Your task to perform on an android device: Open battery settings Image 0: 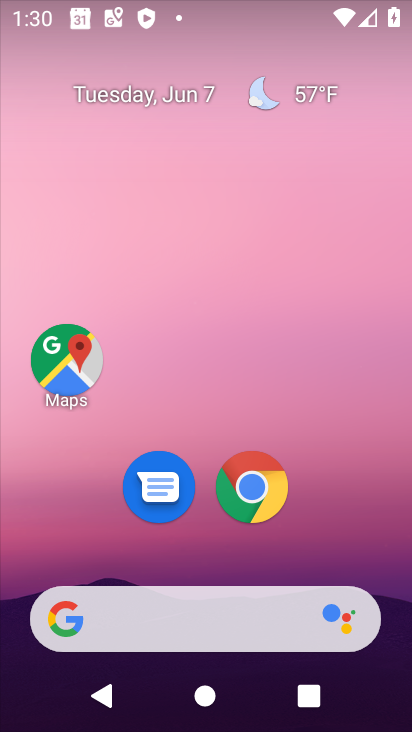
Step 0: drag from (322, 531) to (211, 51)
Your task to perform on an android device: Open battery settings Image 1: 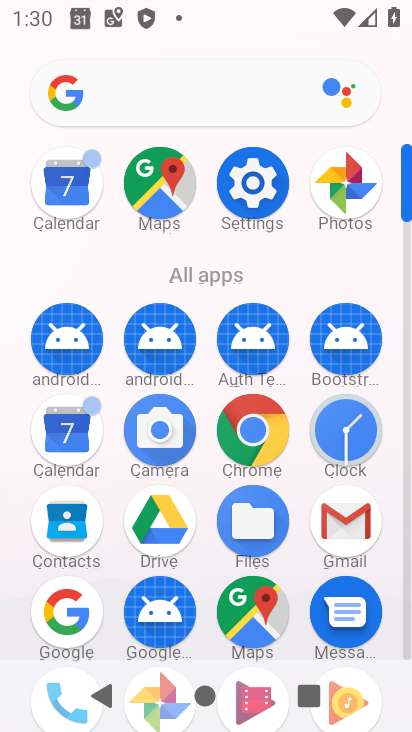
Step 1: click (254, 185)
Your task to perform on an android device: Open battery settings Image 2: 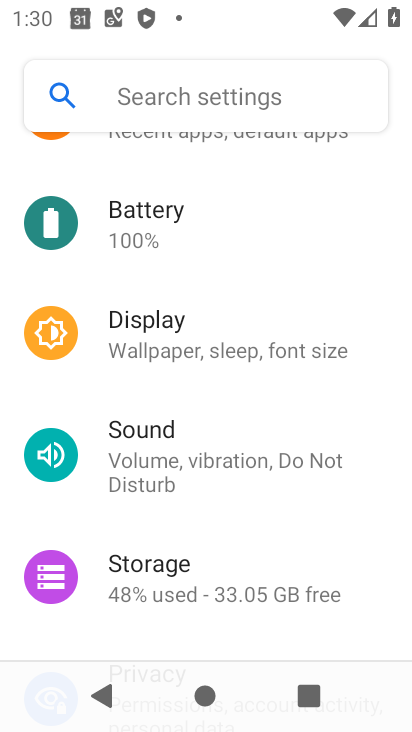
Step 2: click (191, 209)
Your task to perform on an android device: Open battery settings Image 3: 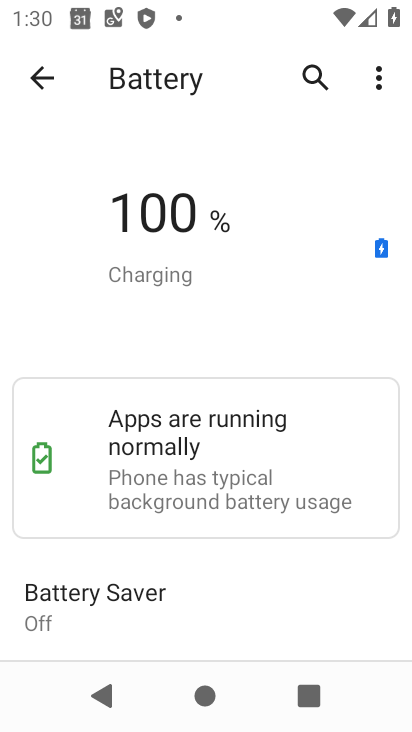
Step 3: task complete